Your task to perform on an android device: turn on location history Image 0: 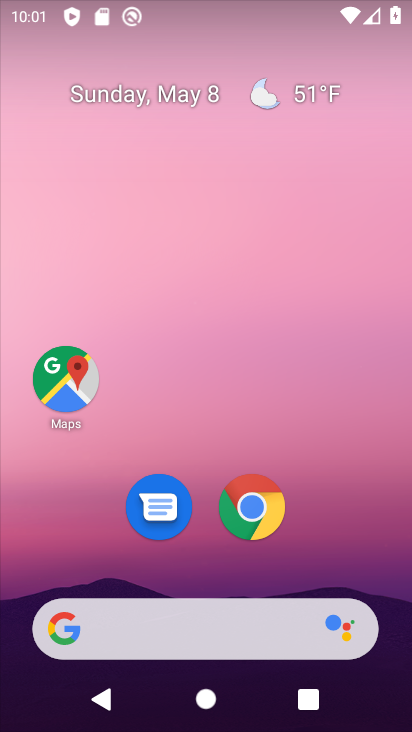
Step 0: press home button
Your task to perform on an android device: turn on location history Image 1: 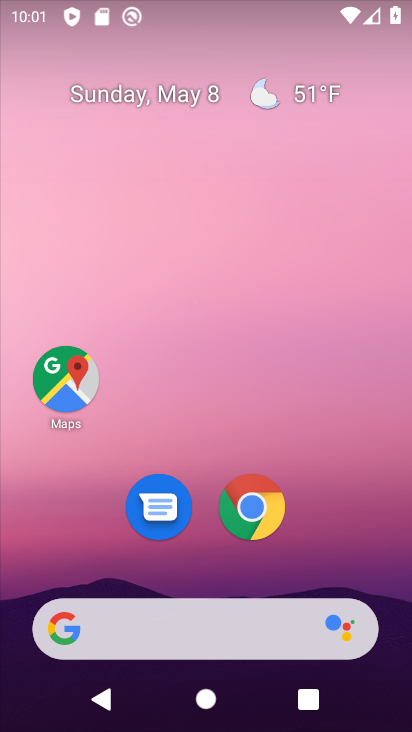
Step 1: drag from (211, 571) to (195, 85)
Your task to perform on an android device: turn on location history Image 2: 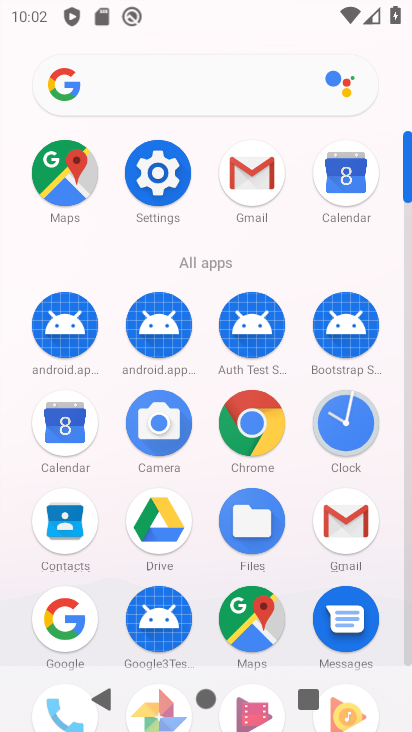
Step 2: click (157, 159)
Your task to perform on an android device: turn on location history Image 3: 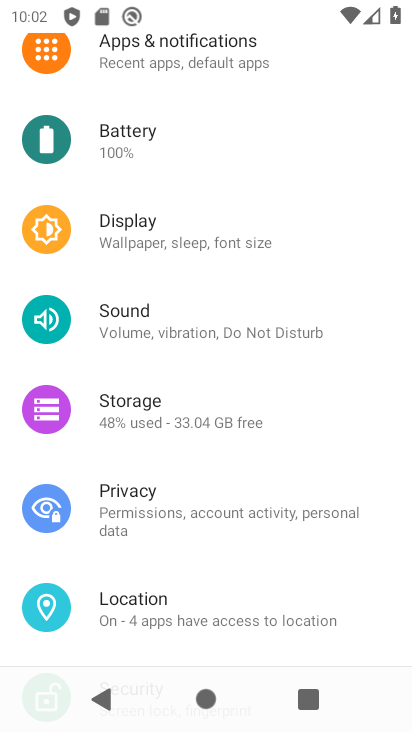
Step 3: click (184, 600)
Your task to perform on an android device: turn on location history Image 4: 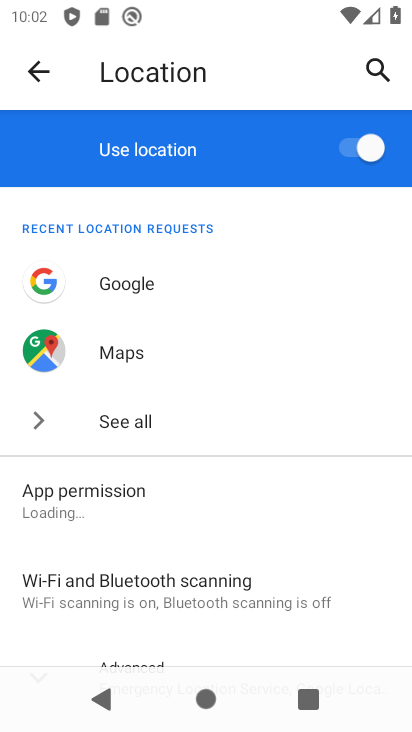
Step 4: drag from (150, 620) to (169, 344)
Your task to perform on an android device: turn on location history Image 5: 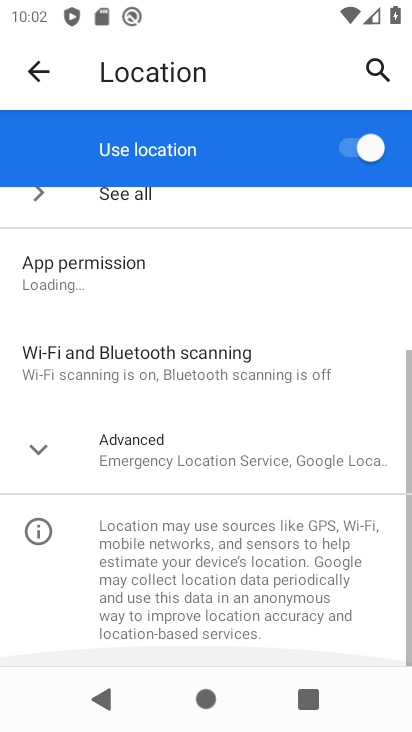
Step 5: click (165, 308)
Your task to perform on an android device: turn on location history Image 6: 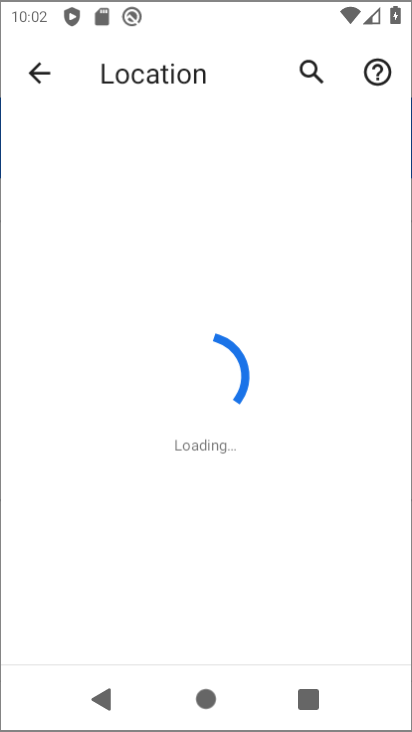
Step 6: click (38, 438)
Your task to perform on an android device: turn on location history Image 7: 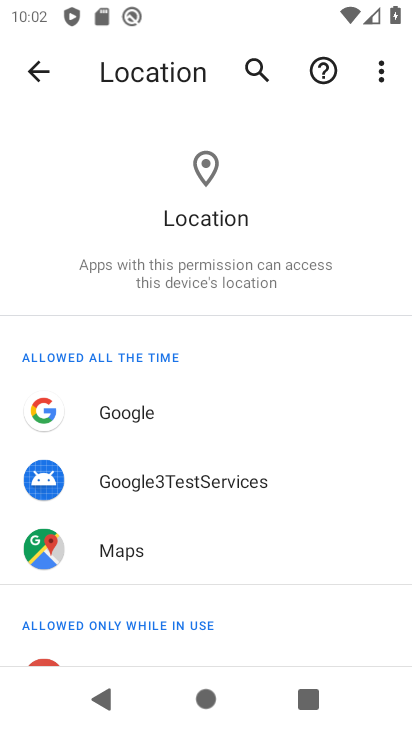
Step 7: drag from (187, 589) to (201, 245)
Your task to perform on an android device: turn on location history Image 8: 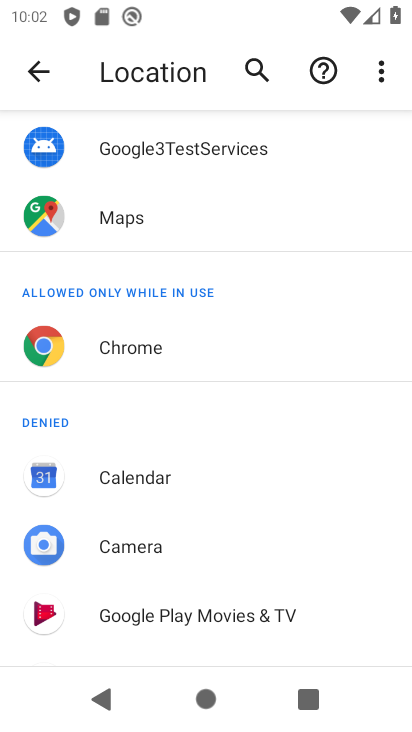
Step 8: drag from (177, 557) to (167, 135)
Your task to perform on an android device: turn on location history Image 9: 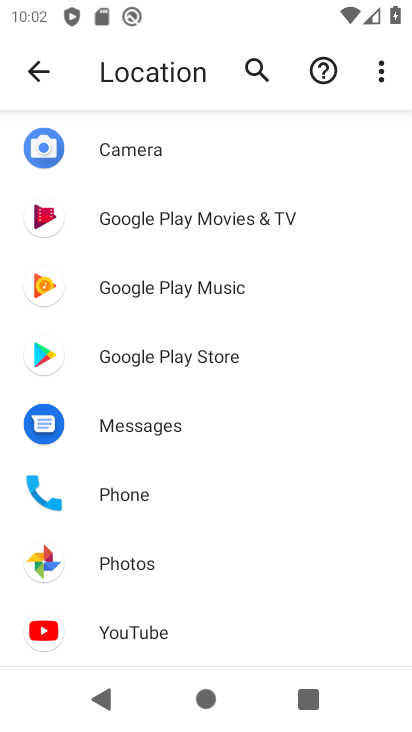
Step 9: drag from (133, 532) to (136, 91)
Your task to perform on an android device: turn on location history Image 10: 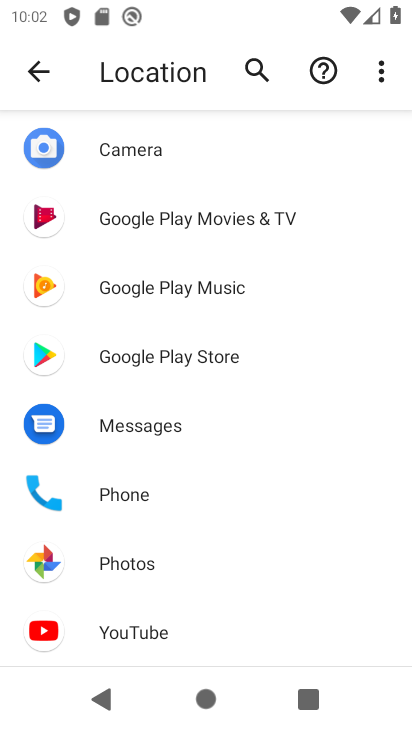
Step 10: click (33, 74)
Your task to perform on an android device: turn on location history Image 11: 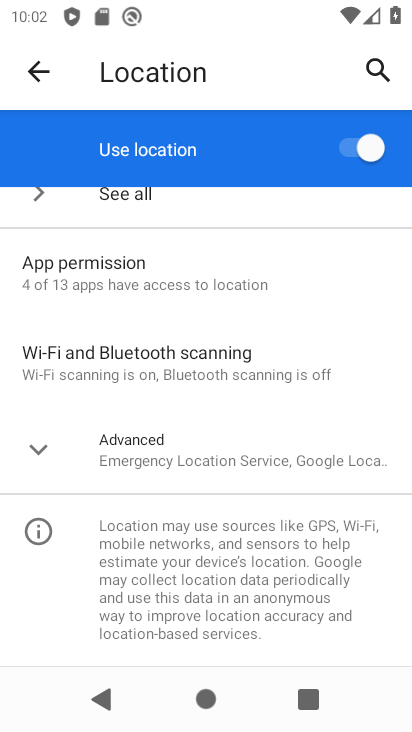
Step 11: click (79, 459)
Your task to perform on an android device: turn on location history Image 12: 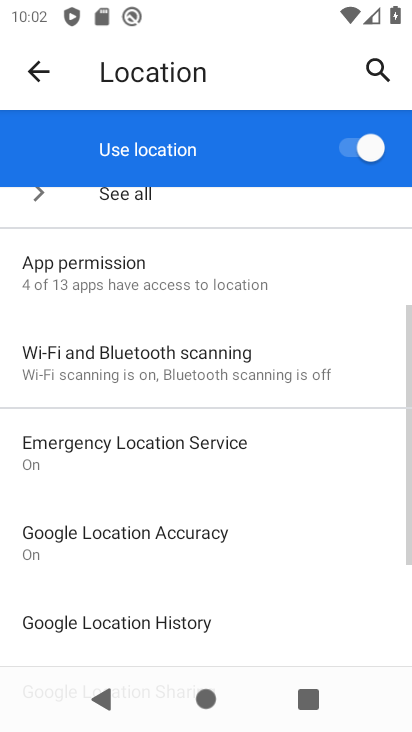
Step 12: drag from (140, 552) to (157, 281)
Your task to perform on an android device: turn on location history Image 13: 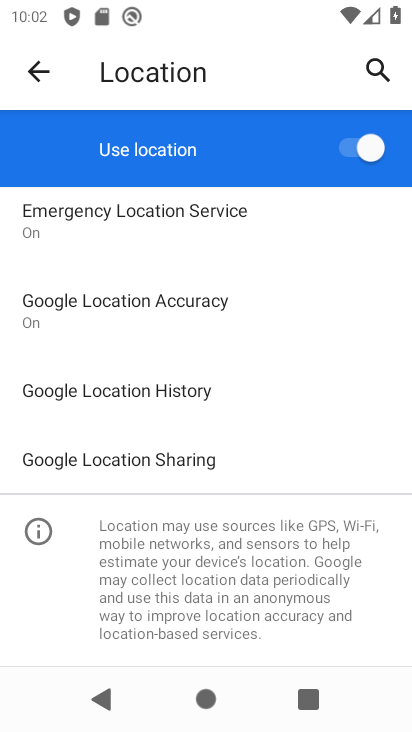
Step 13: click (154, 397)
Your task to perform on an android device: turn on location history Image 14: 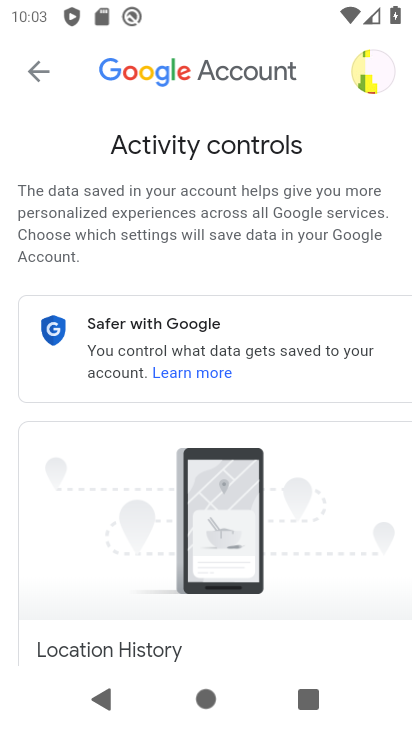
Step 14: task complete